Your task to perform on an android device: install app "Contacts" Image 0: 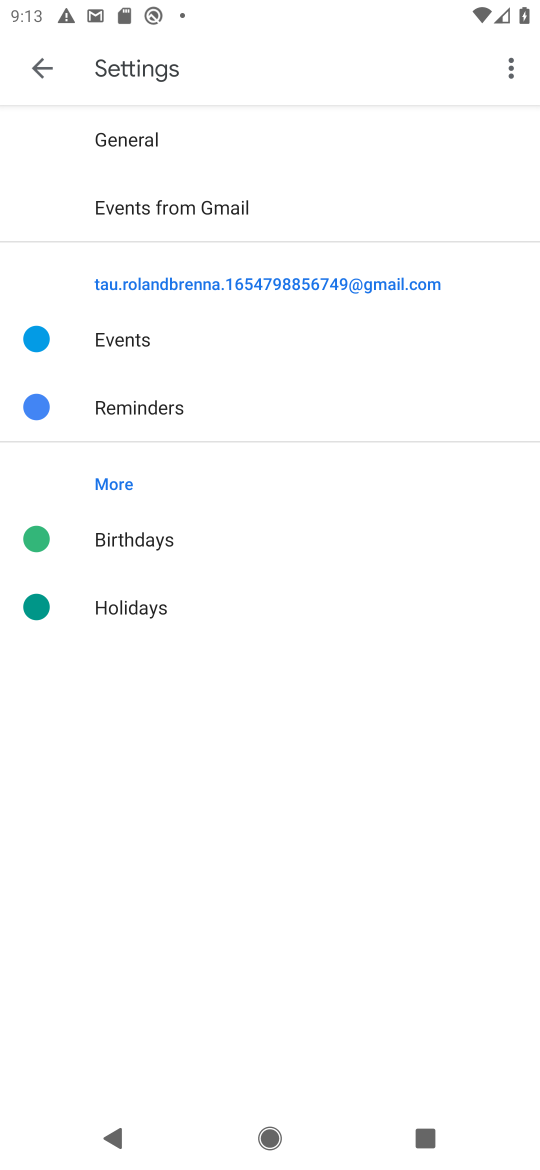
Step 0: press home button
Your task to perform on an android device: install app "Contacts" Image 1: 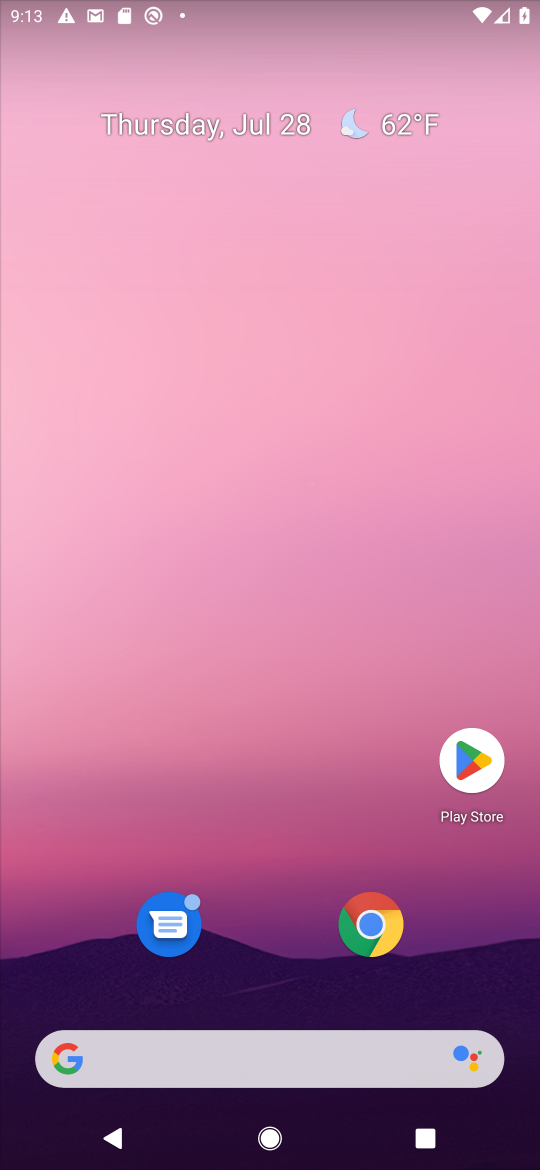
Step 1: click (471, 757)
Your task to perform on an android device: install app "Contacts" Image 2: 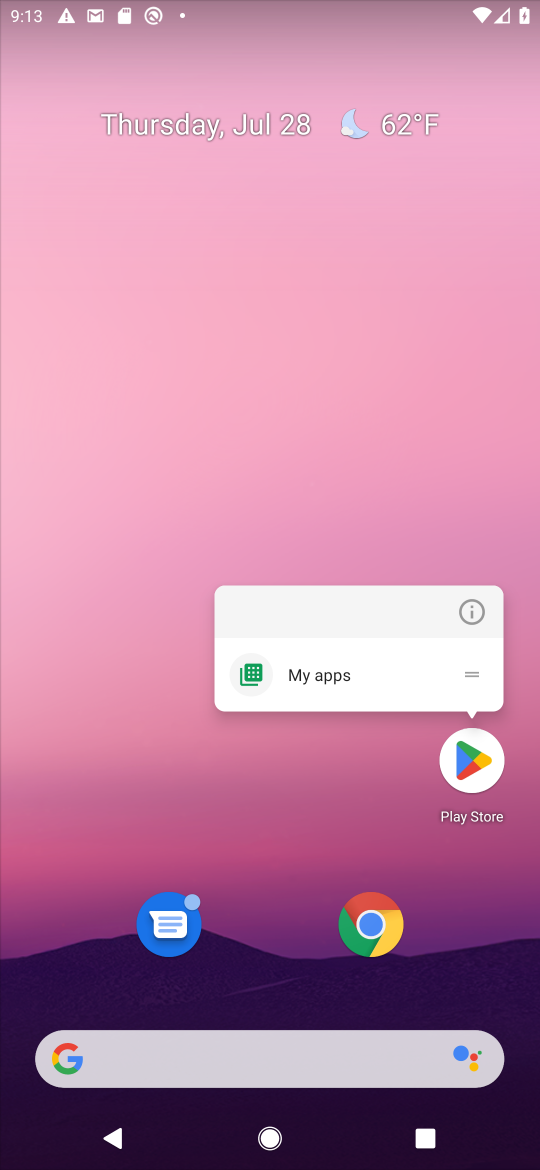
Step 2: click (471, 757)
Your task to perform on an android device: install app "Contacts" Image 3: 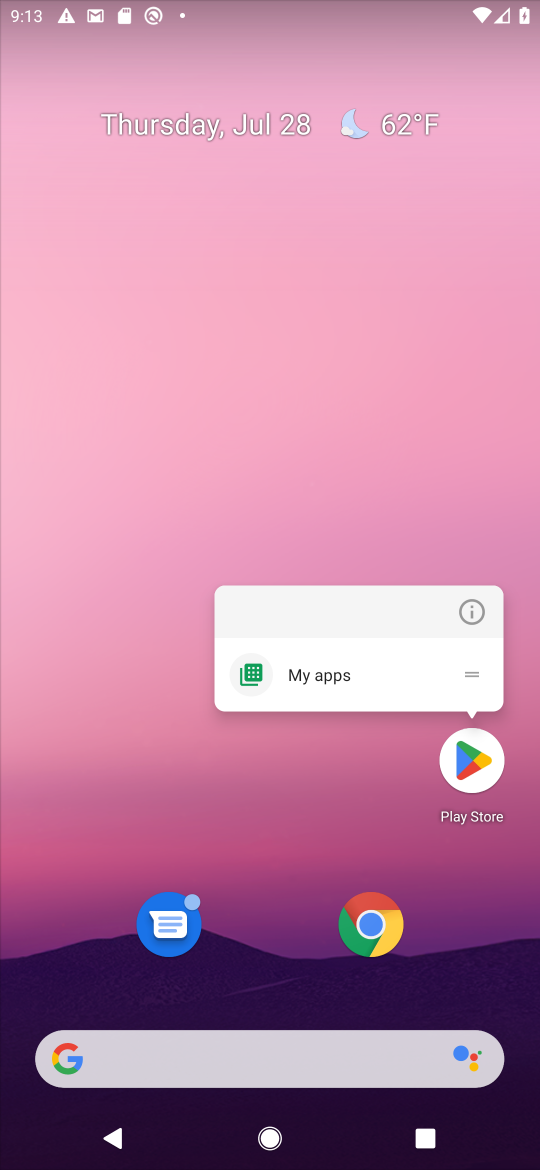
Step 3: click (471, 761)
Your task to perform on an android device: install app "Contacts" Image 4: 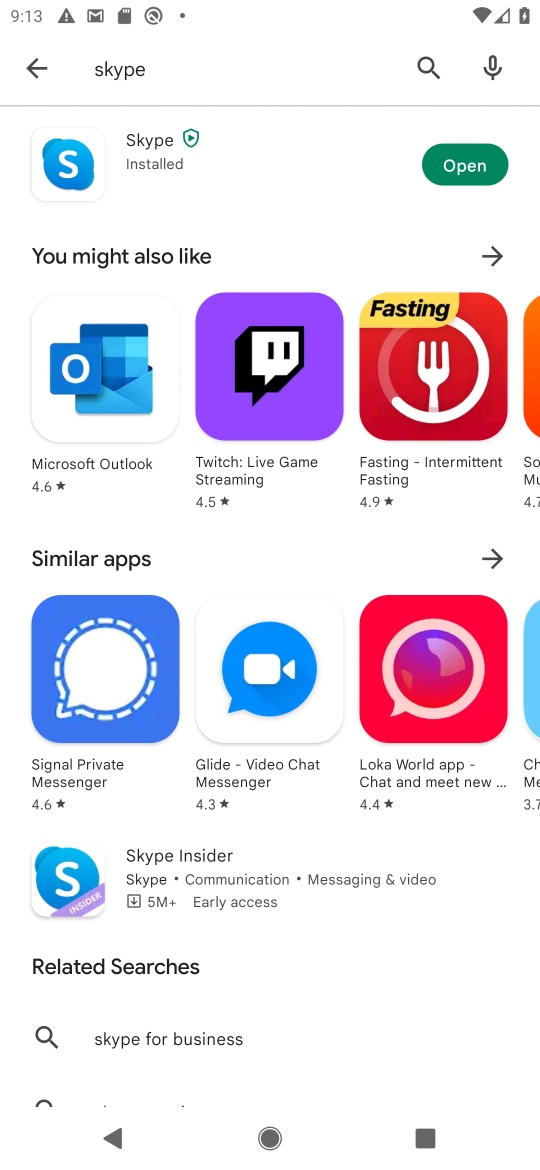
Step 4: click (421, 49)
Your task to perform on an android device: install app "Contacts" Image 5: 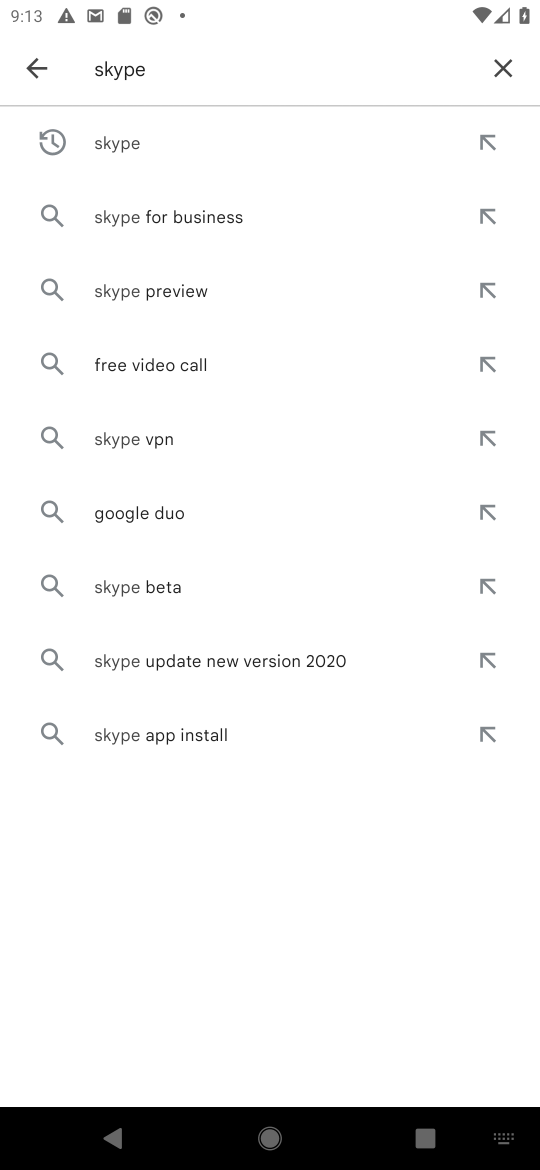
Step 5: click (503, 59)
Your task to perform on an android device: install app "Contacts" Image 6: 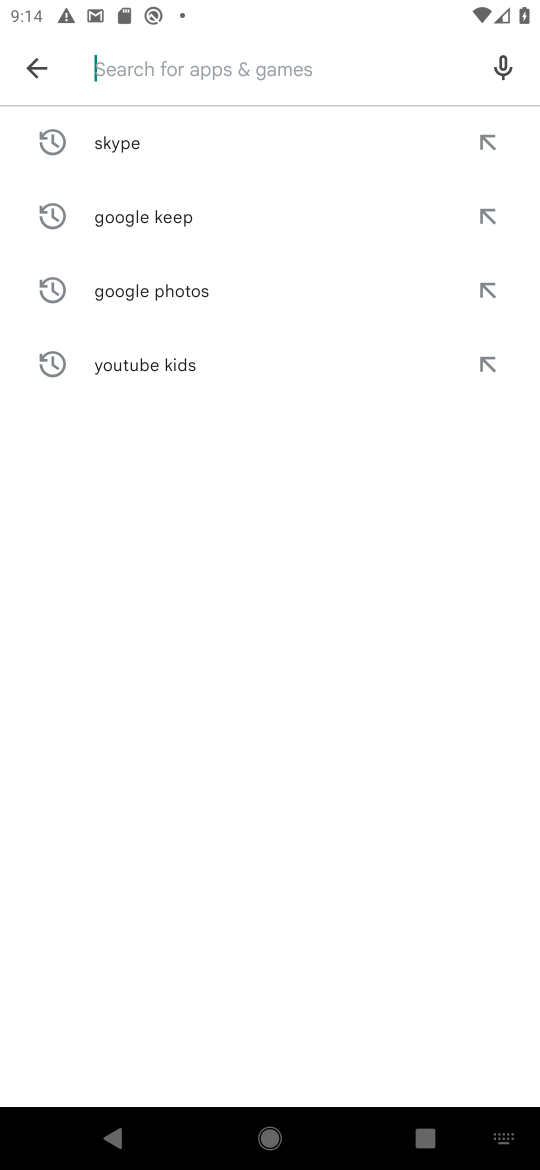
Step 6: type "Contacts"
Your task to perform on an android device: install app "Contacts" Image 7: 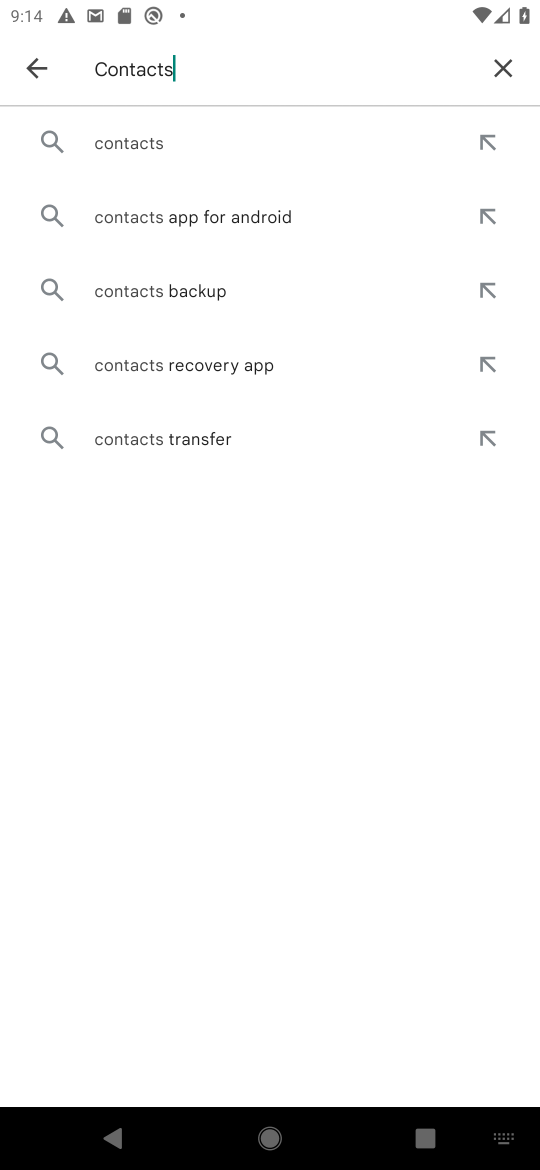
Step 7: click (125, 144)
Your task to perform on an android device: install app "Contacts" Image 8: 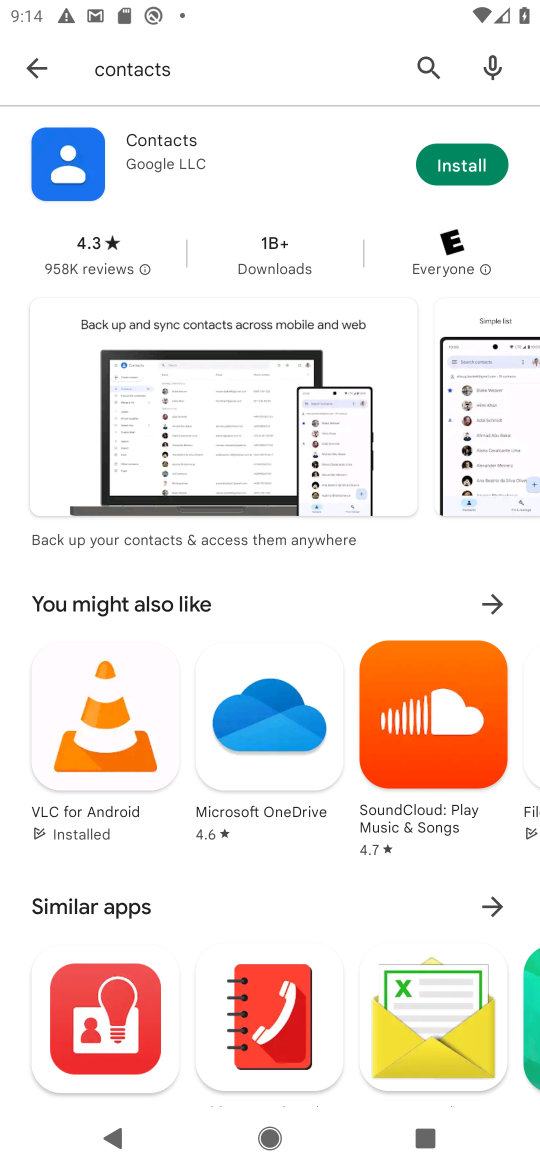
Step 8: click (456, 173)
Your task to perform on an android device: install app "Contacts" Image 9: 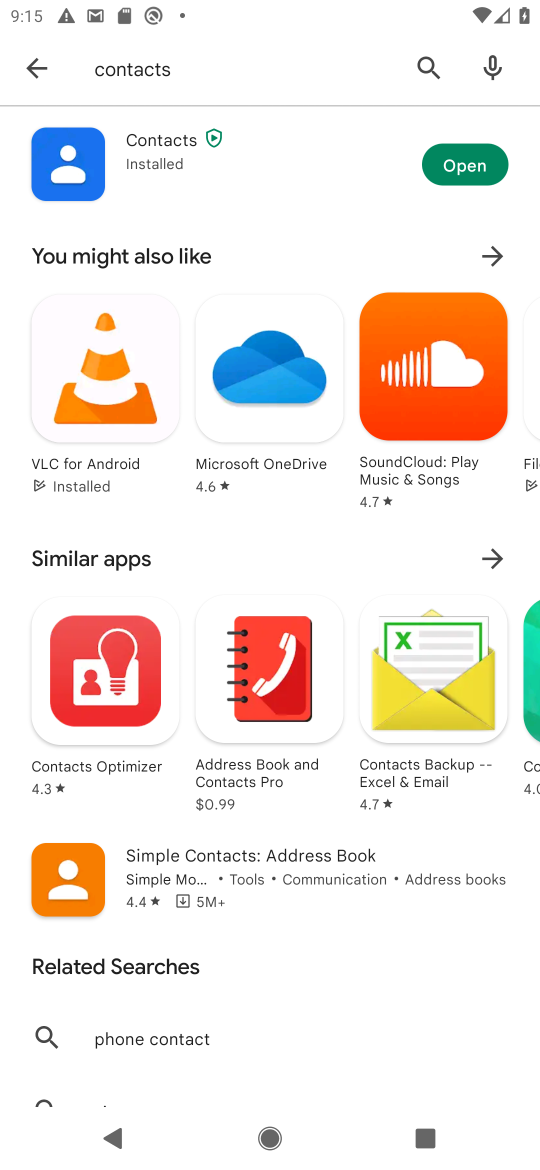
Step 9: task complete